Your task to perform on an android device: change alarm snooze length Image 0: 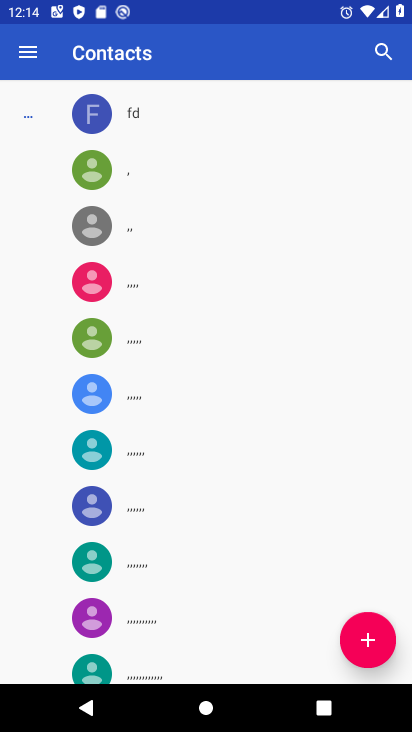
Step 0: press home button
Your task to perform on an android device: change alarm snooze length Image 1: 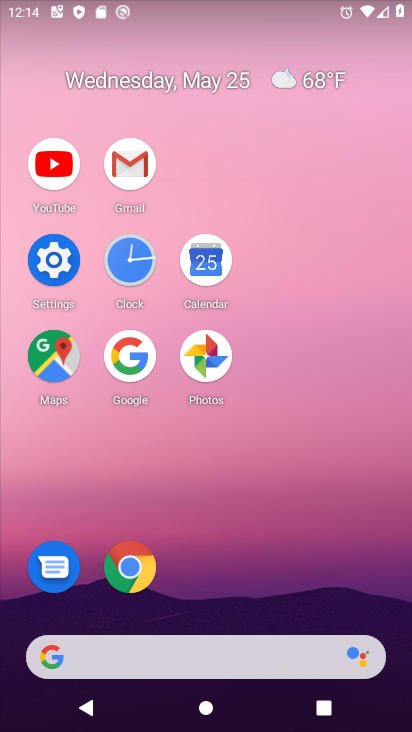
Step 1: click (137, 271)
Your task to perform on an android device: change alarm snooze length Image 2: 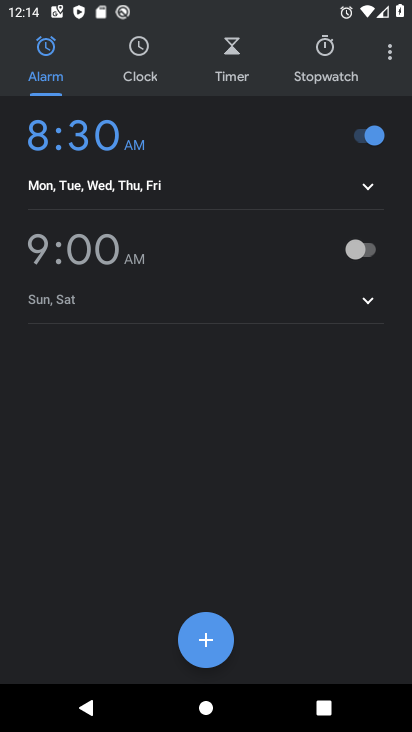
Step 2: click (386, 49)
Your task to perform on an android device: change alarm snooze length Image 3: 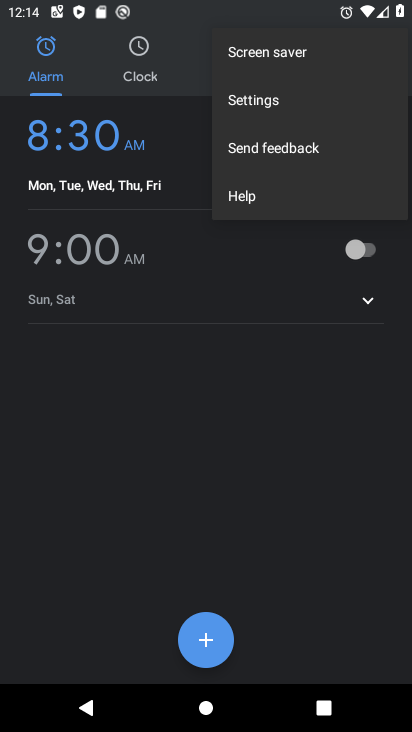
Step 3: click (263, 113)
Your task to perform on an android device: change alarm snooze length Image 4: 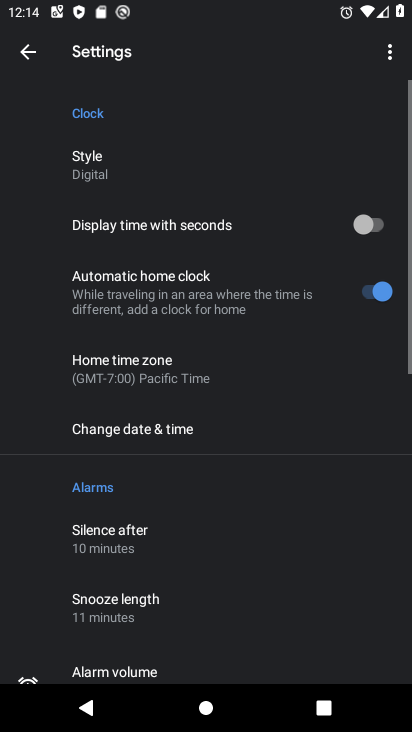
Step 4: drag from (204, 514) to (225, 252)
Your task to perform on an android device: change alarm snooze length Image 5: 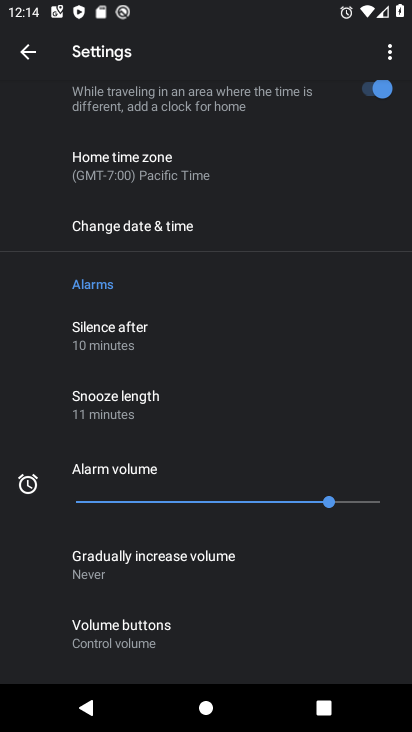
Step 5: click (167, 394)
Your task to perform on an android device: change alarm snooze length Image 6: 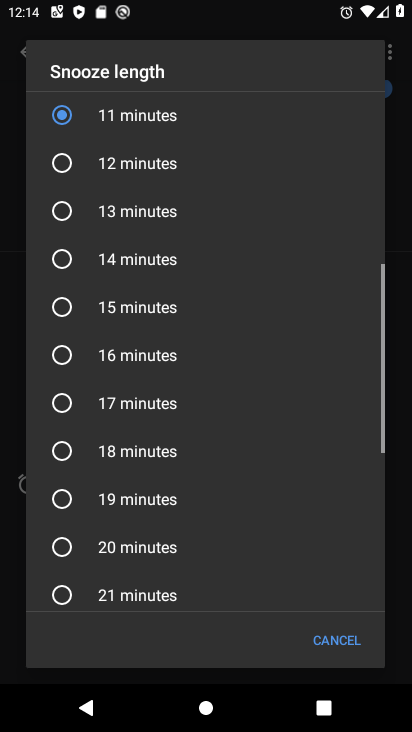
Step 6: click (132, 230)
Your task to perform on an android device: change alarm snooze length Image 7: 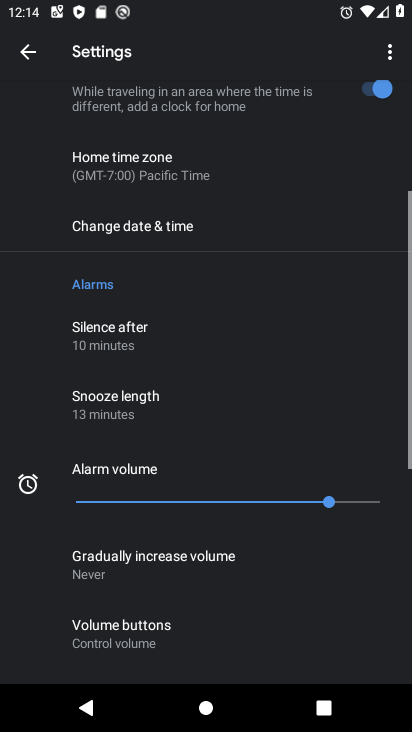
Step 7: task complete